Your task to perform on an android device: Check the news Image 0: 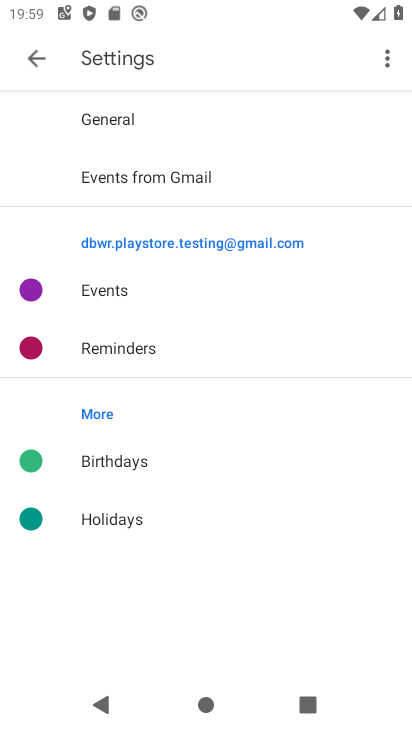
Step 0: press home button
Your task to perform on an android device: Check the news Image 1: 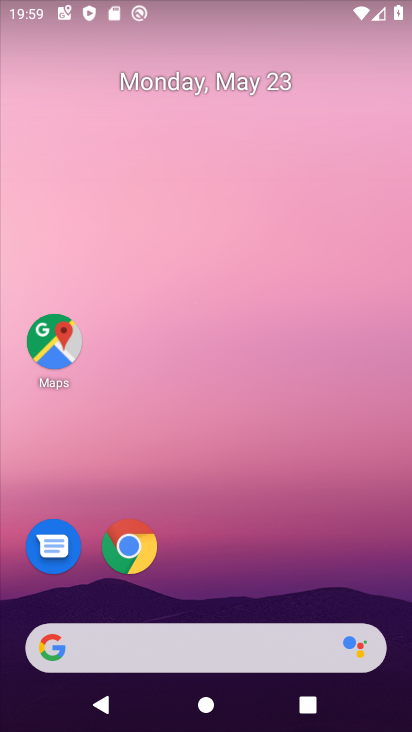
Step 1: drag from (1, 264) to (408, 287)
Your task to perform on an android device: Check the news Image 2: 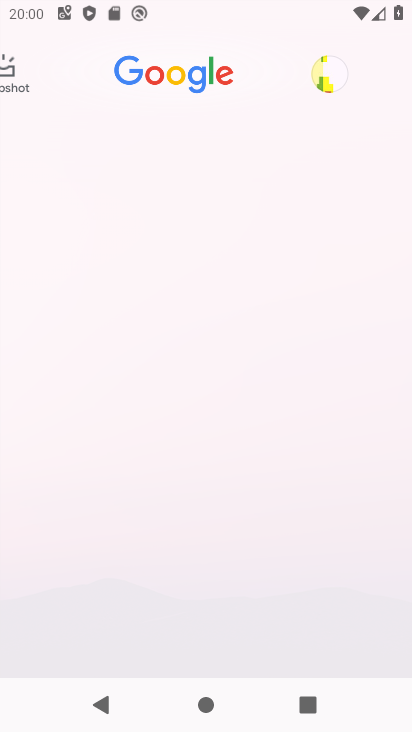
Step 2: drag from (146, 321) to (386, 323)
Your task to perform on an android device: Check the news Image 3: 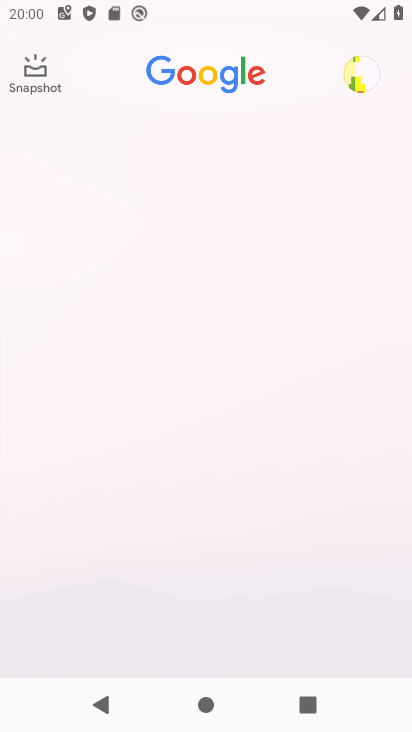
Step 3: drag from (216, 96) to (232, 411)
Your task to perform on an android device: Check the news Image 4: 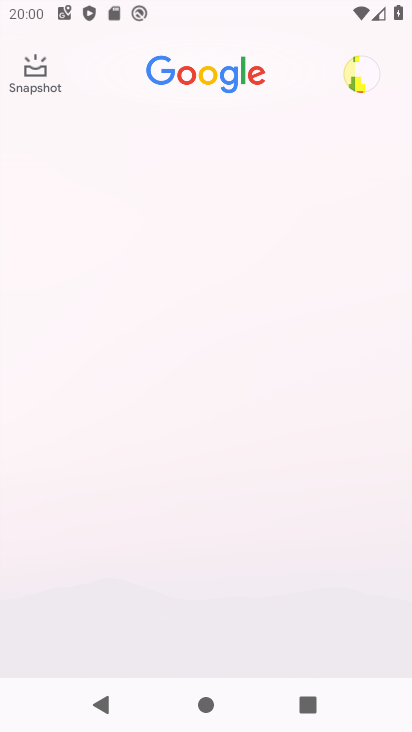
Step 4: drag from (194, 87) to (193, 443)
Your task to perform on an android device: Check the news Image 5: 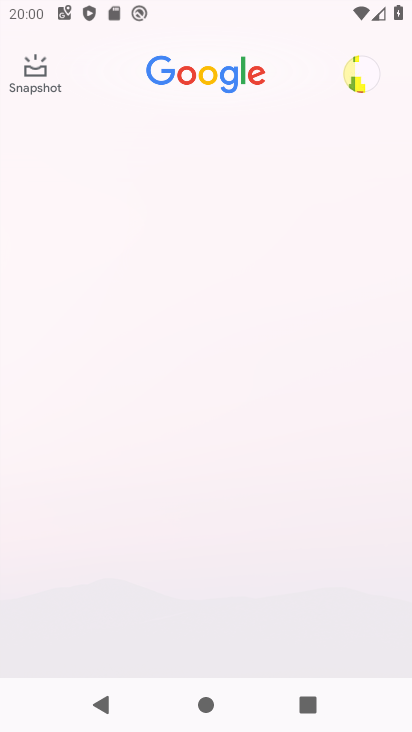
Step 5: drag from (208, 66) to (218, 539)
Your task to perform on an android device: Check the news Image 6: 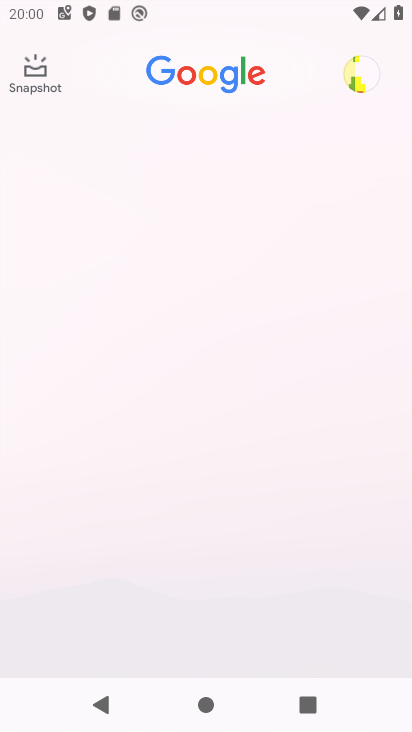
Step 6: drag from (210, 93) to (203, 518)
Your task to perform on an android device: Check the news Image 7: 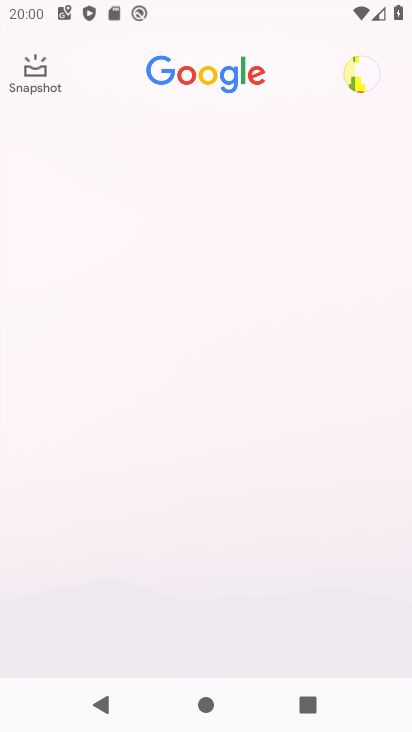
Step 7: click (212, 116)
Your task to perform on an android device: Check the news Image 8: 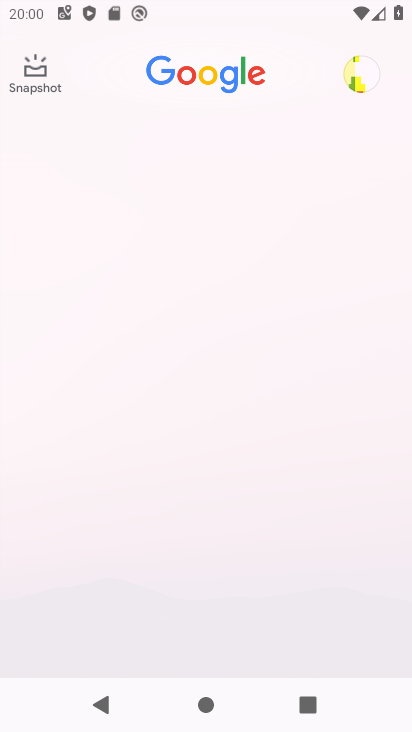
Step 8: drag from (210, 53) to (226, 455)
Your task to perform on an android device: Check the news Image 9: 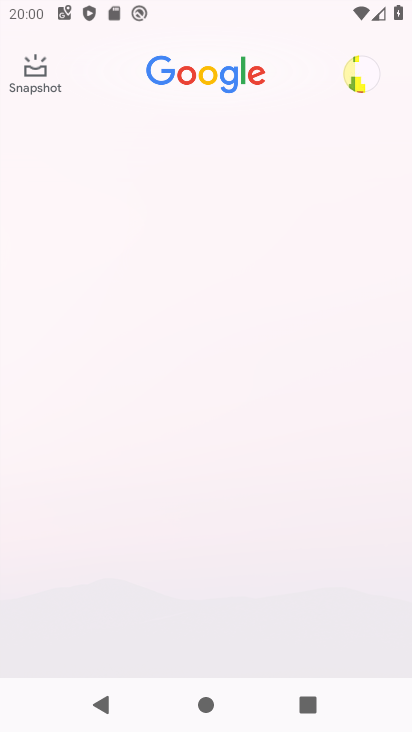
Step 9: click (206, 118)
Your task to perform on an android device: Check the news Image 10: 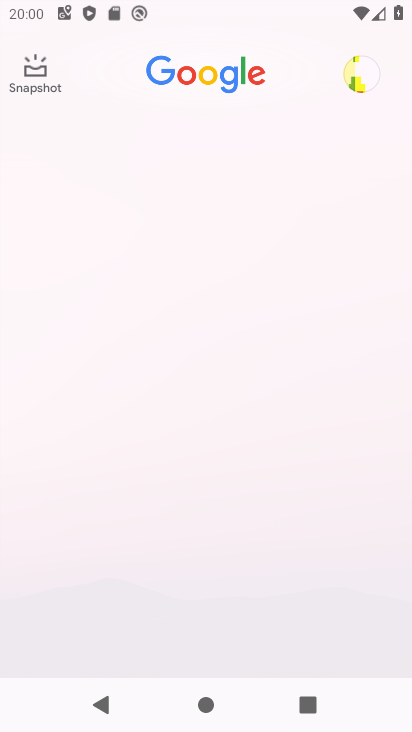
Step 10: task complete